Your task to perform on an android device: change keyboard looks Image 0: 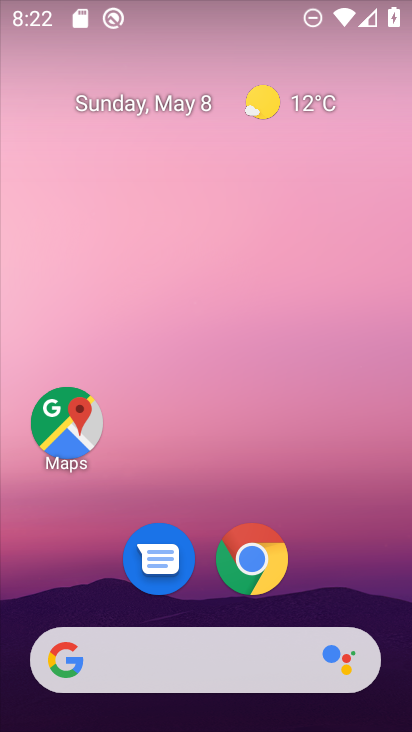
Step 0: drag from (369, 515) to (384, 12)
Your task to perform on an android device: change keyboard looks Image 1: 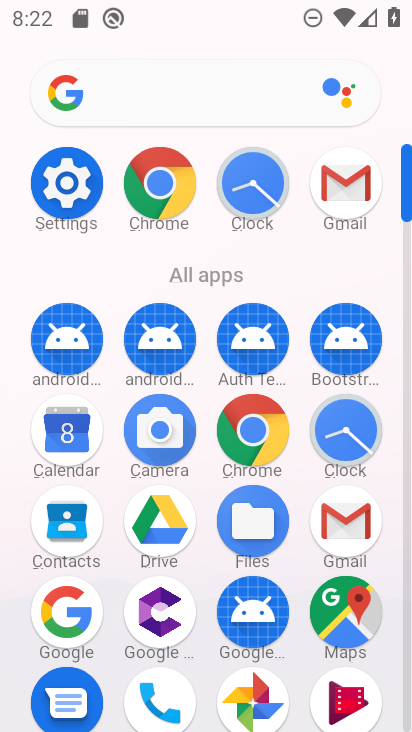
Step 1: click (70, 186)
Your task to perform on an android device: change keyboard looks Image 2: 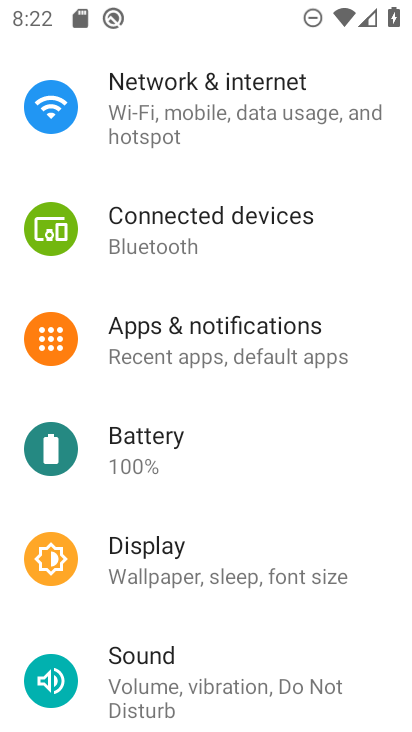
Step 2: drag from (382, 640) to (382, 186)
Your task to perform on an android device: change keyboard looks Image 3: 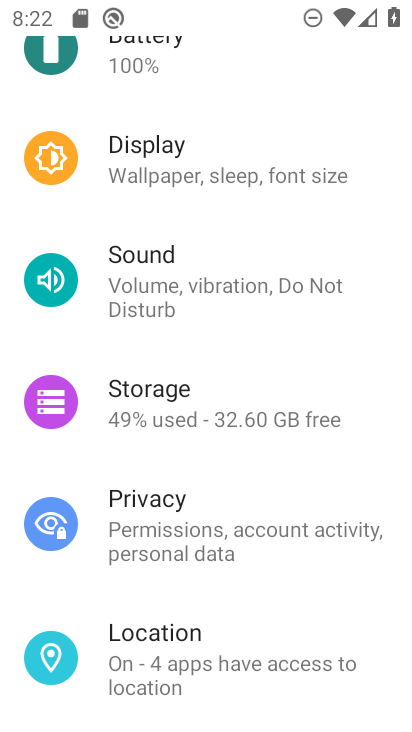
Step 3: drag from (381, 667) to (411, 173)
Your task to perform on an android device: change keyboard looks Image 4: 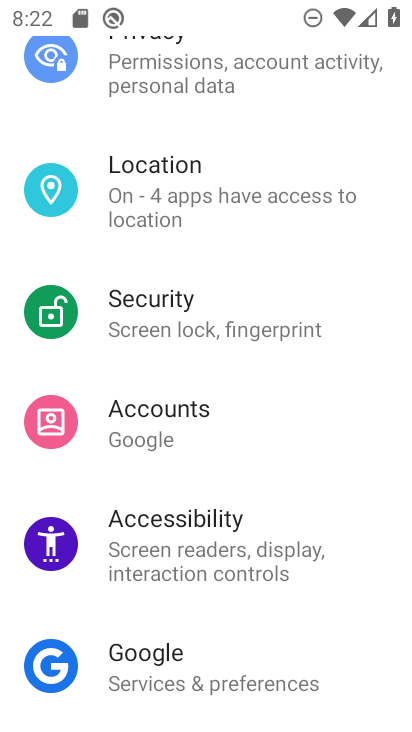
Step 4: drag from (348, 596) to (392, 212)
Your task to perform on an android device: change keyboard looks Image 5: 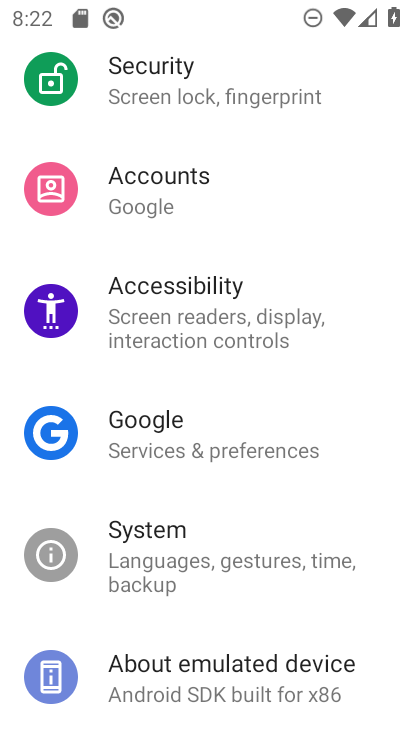
Step 5: click (124, 548)
Your task to perform on an android device: change keyboard looks Image 6: 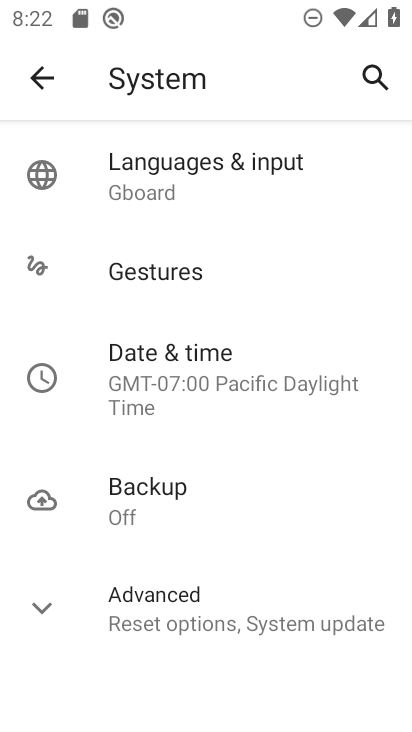
Step 6: click (130, 186)
Your task to perform on an android device: change keyboard looks Image 7: 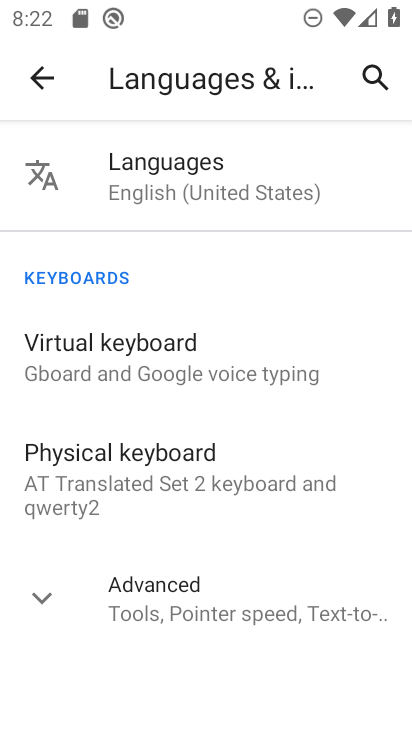
Step 7: click (113, 372)
Your task to perform on an android device: change keyboard looks Image 8: 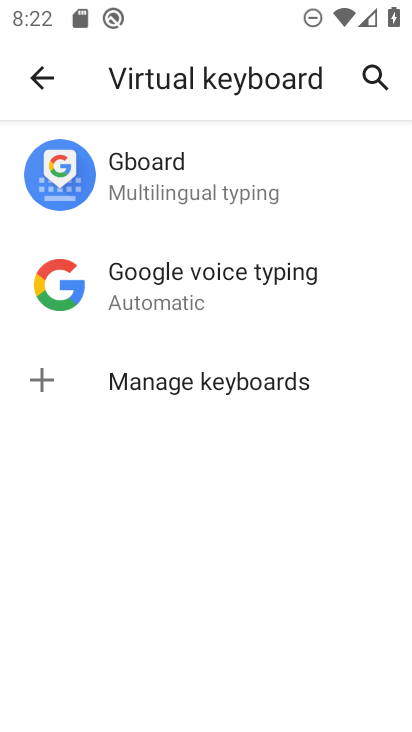
Step 8: click (103, 160)
Your task to perform on an android device: change keyboard looks Image 9: 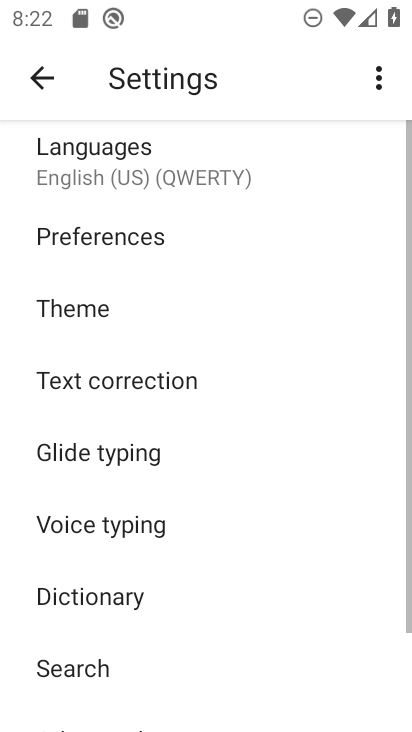
Step 9: click (95, 316)
Your task to perform on an android device: change keyboard looks Image 10: 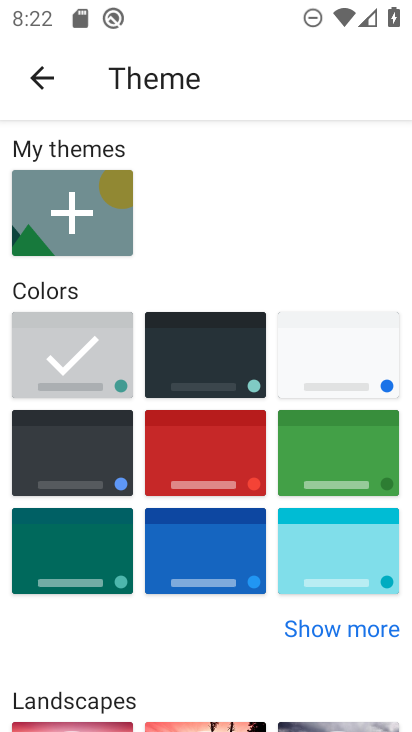
Step 10: click (176, 475)
Your task to perform on an android device: change keyboard looks Image 11: 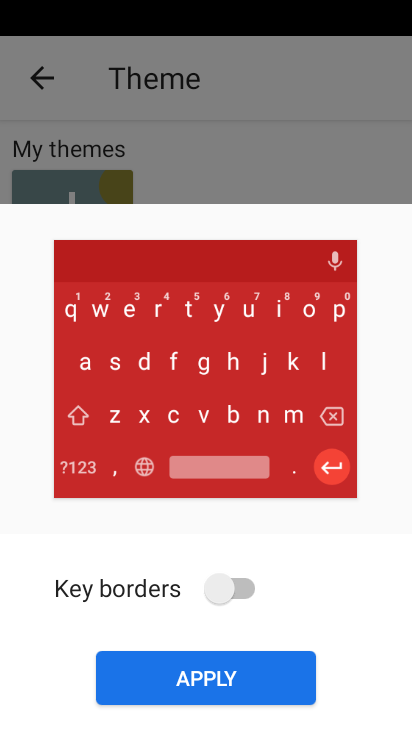
Step 11: click (225, 590)
Your task to perform on an android device: change keyboard looks Image 12: 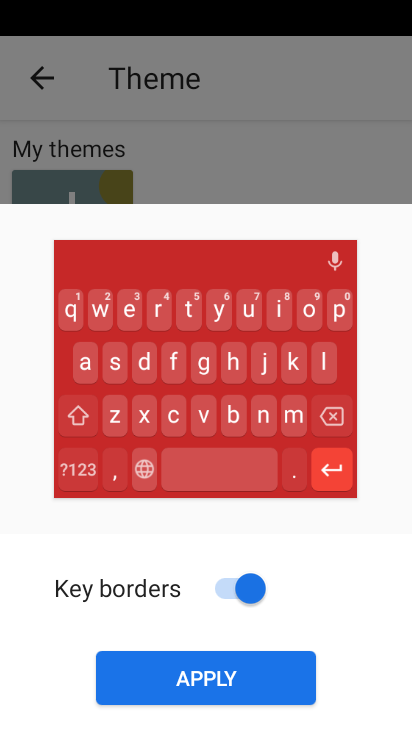
Step 12: click (222, 659)
Your task to perform on an android device: change keyboard looks Image 13: 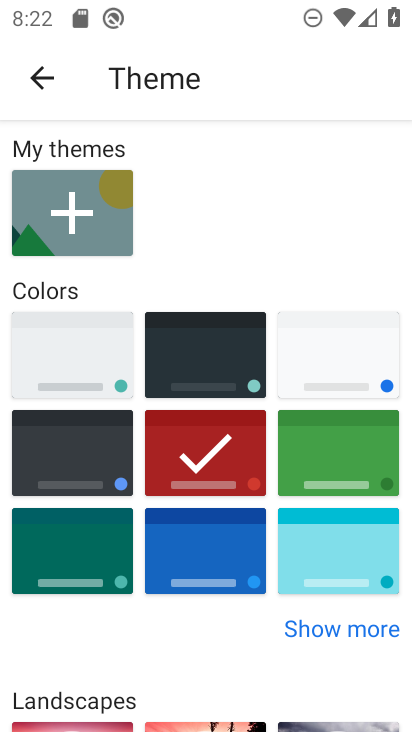
Step 13: task complete